Your task to perform on an android device: Go to location settings Image 0: 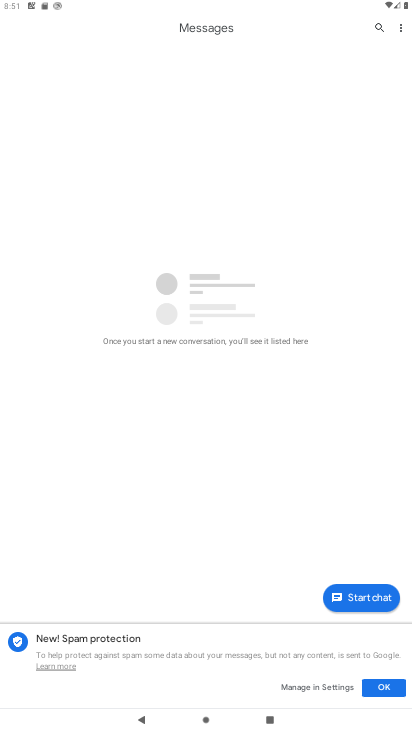
Step 0: press home button
Your task to perform on an android device: Go to location settings Image 1: 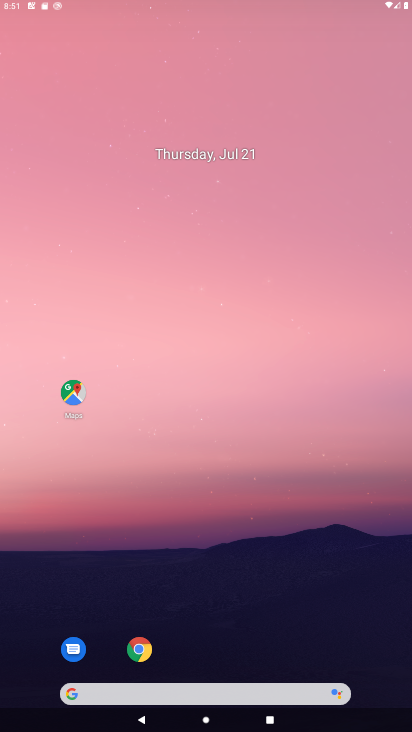
Step 1: drag from (222, 654) to (274, 97)
Your task to perform on an android device: Go to location settings Image 2: 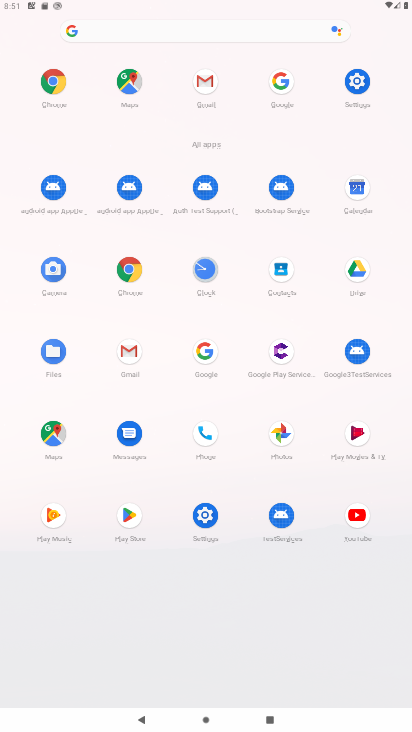
Step 2: click (356, 76)
Your task to perform on an android device: Go to location settings Image 3: 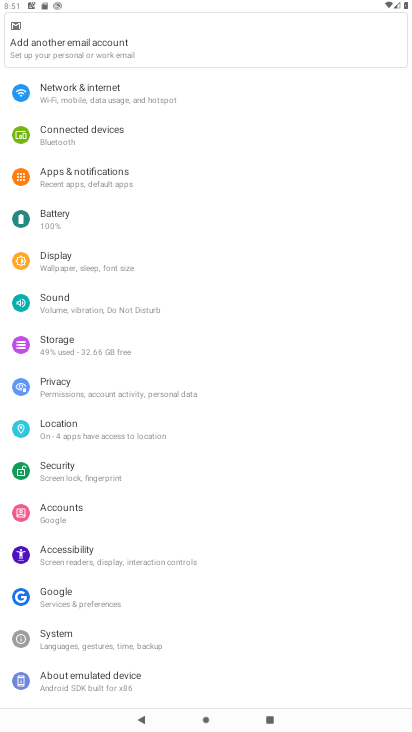
Step 3: click (72, 430)
Your task to perform on an android device: Go to location settings Image 4: 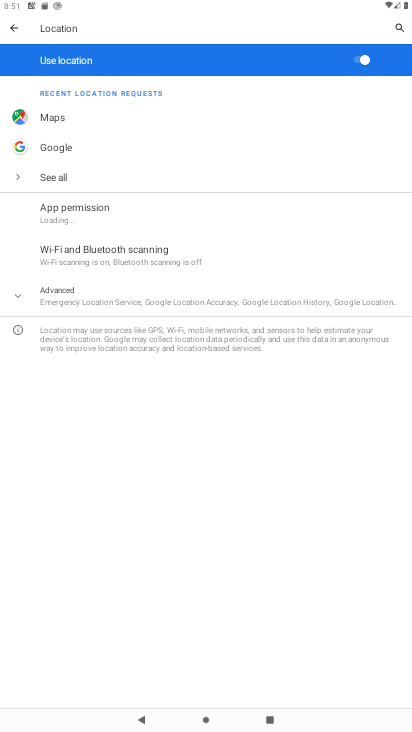
Step 4: task complete